Your task to perform on an android device: toggle translation in the chrome app Image 0: 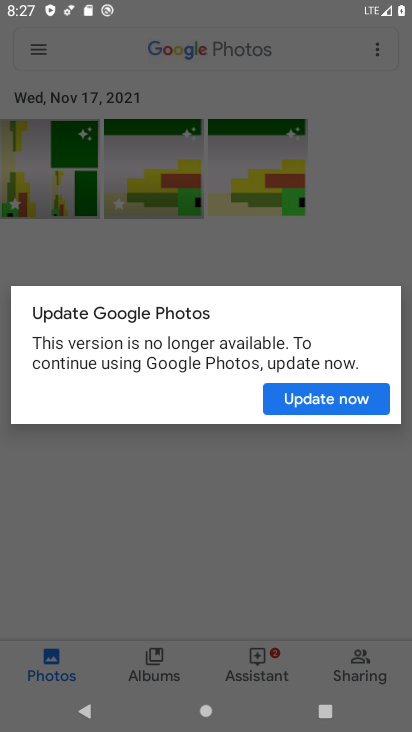
Step 0: press home button
Your task to perform on an android device: toggle translation in the chrome app Image 1: 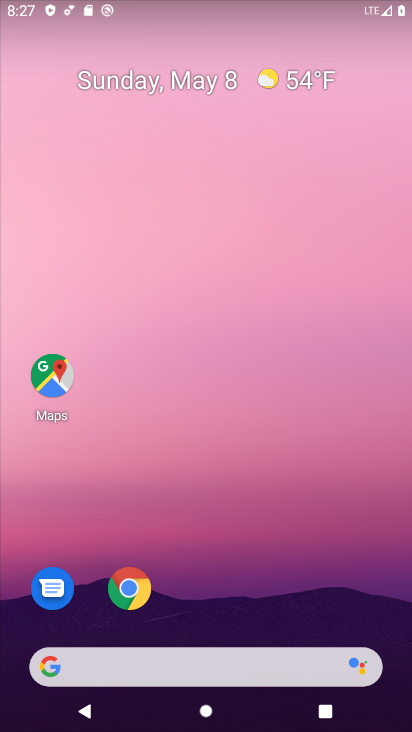
Step 1: click (128, 591)
Your task to perform on an android device: toggle translation in the chrome app Image 2: 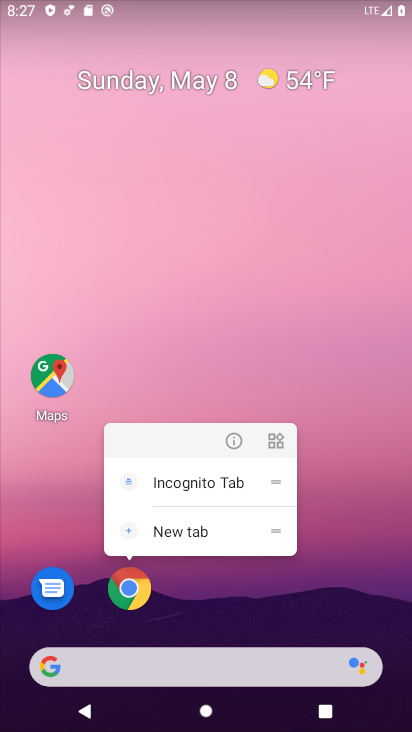
Step 2: click (124, 581)
Your task to perform on an android device: toggle translation in the chrome app Image 3: 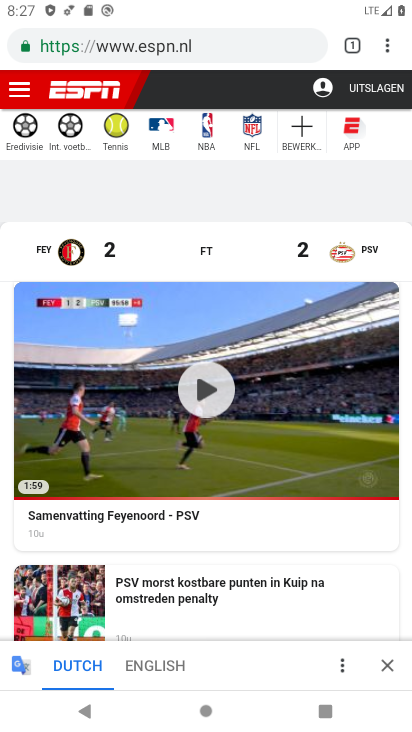
Step 3: click (391, 48)
Your task to perform on an android device: toggle translation in the chrome app Image 4: 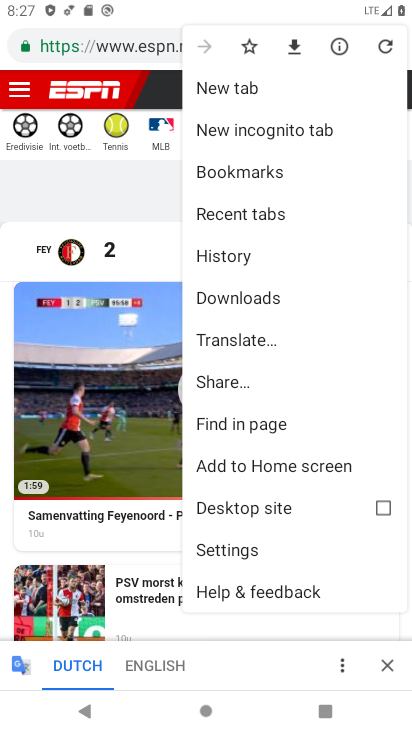
Step 4: click (207, 556)
Your task to perform on an android device: toggle translation in the chrome app Image 5: 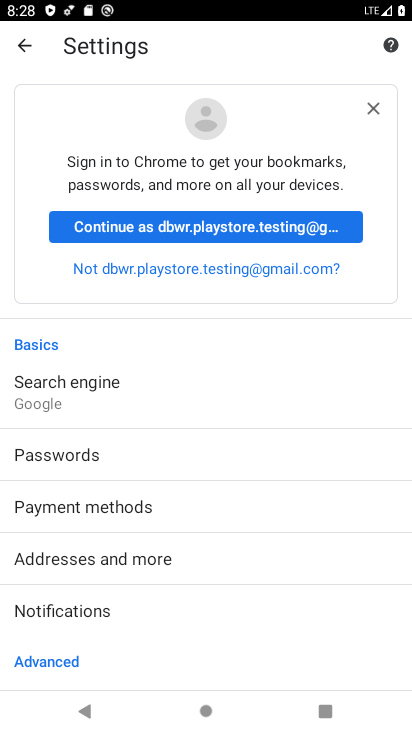
Step 5: drag from (235, 607) to (402, 155)
Your task to perform on an android device: toggle translation in the chrome app Image 6: 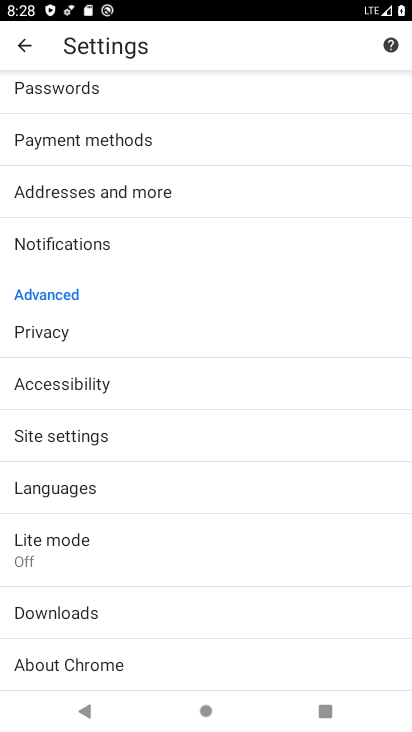
Step 6: click (42, 485)
Your task to perform on an android device: toggle translation in the chrome app Image 7: 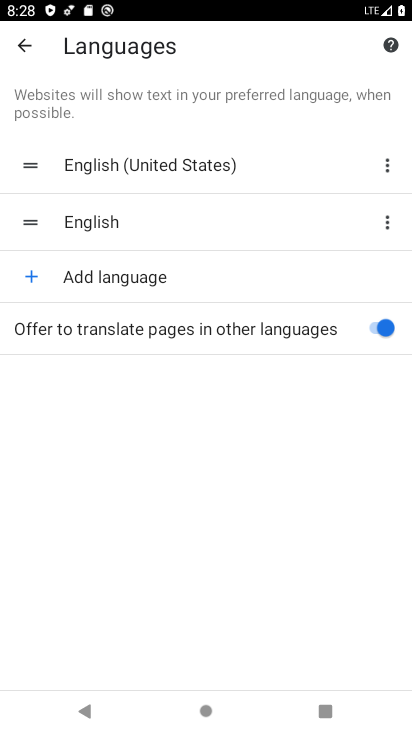
Step 7: click (378, 325)
Your task to perform on an android device: toggle translation in the chrome app Image 8: 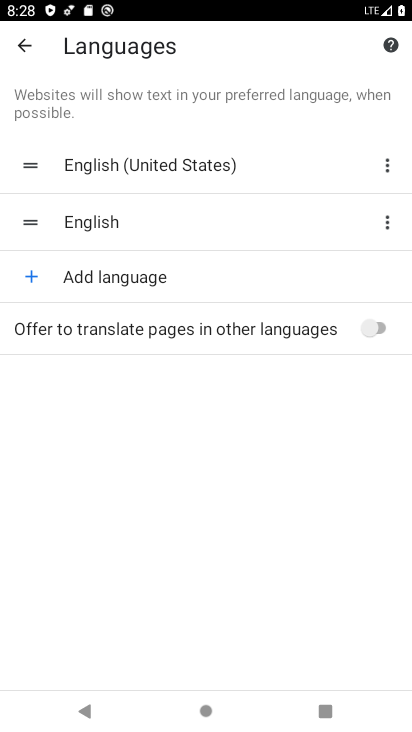
Step 8: task complete